Your task to perform on an android device: Open the Play Movies app and select the watchlist tab. Image 0: 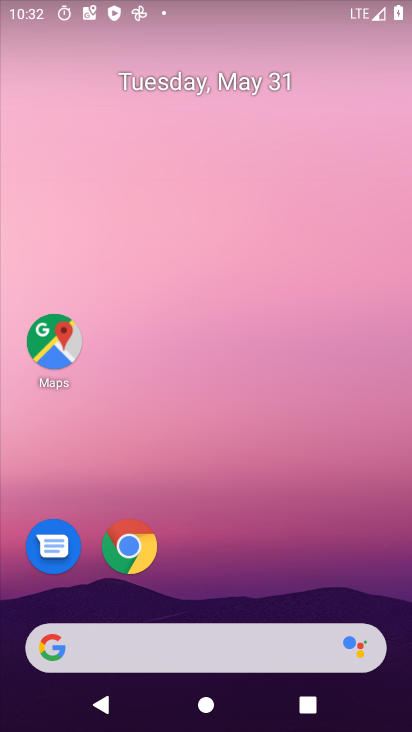
Step 0: drag from (230, 553) to (297, 185)
Your task to perform on an android device: Open the Play Movies app and select the watchlist tab. Image 1: 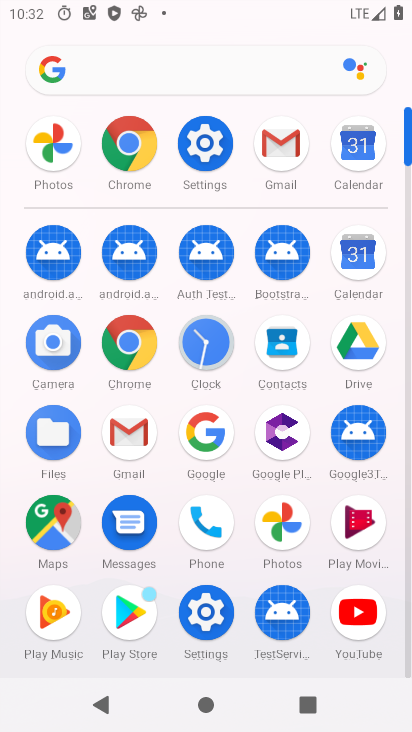
Step 1: click (339, 538)
Your task to perform on an android device: Open the Play Movies app and select the watchlist tab. Image 2: 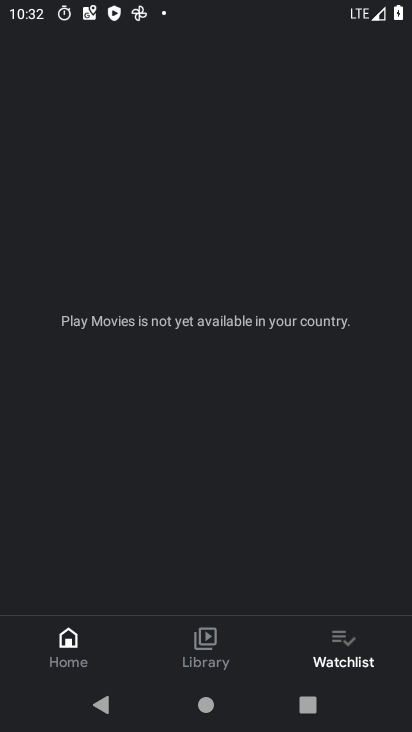
Step 2: click (347, 636)
Your task to perform on an android device: Open the Play Movies app and select the watchlist tab. Image 3: 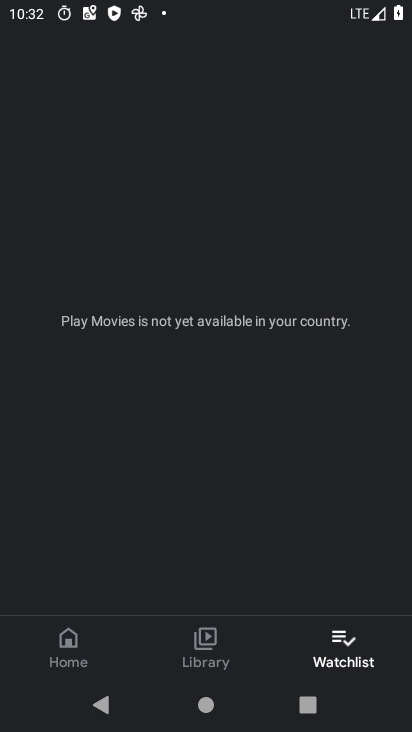
Step 3: task complete